Your task to perform on an android device: Open calendar and show me the second week of next month Image 0: 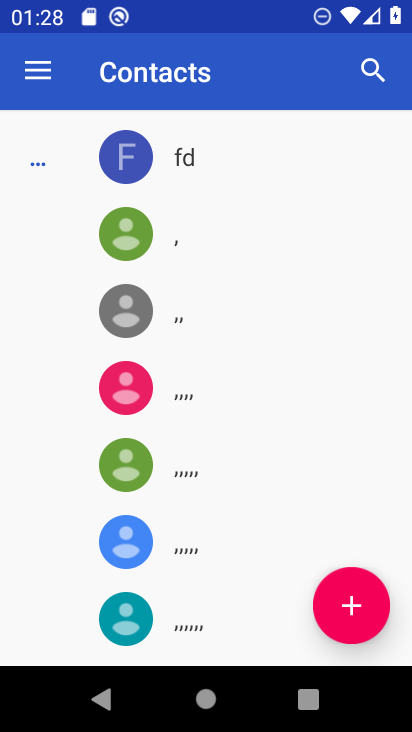
Step 0: press home button
Your task to perform on an android device: Open calendar and show me the second week of next month Image 1: 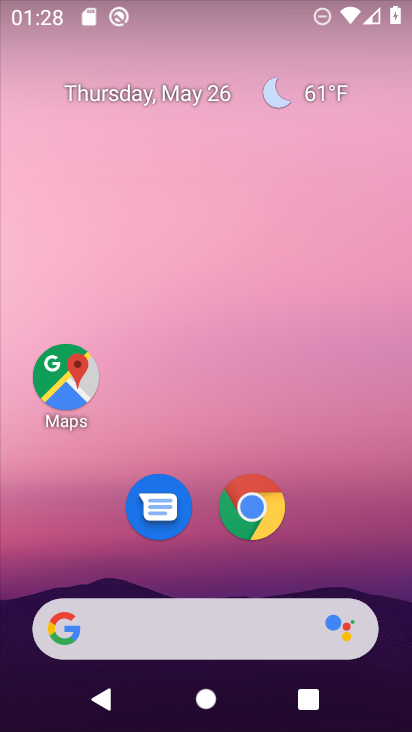
Step 1: drag from (312, 546) to (263, 48)
Your task to perform on an android device: Open calendar and show me the second week of next month Image 2: 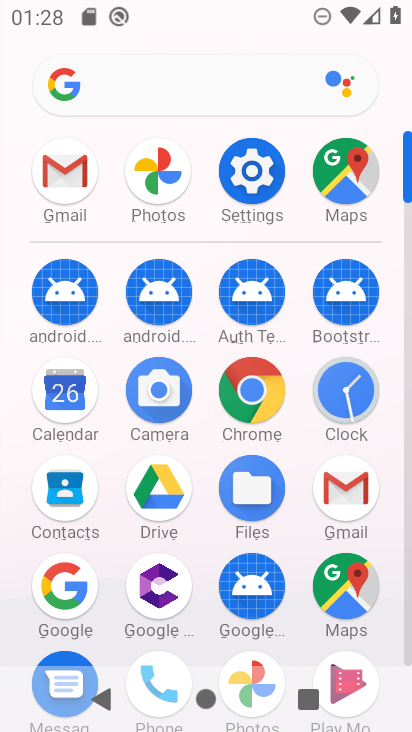
Step 2: click (77, 414)
Your task to perform on an android device: Open calendar and show me the second week of next month Image 3: 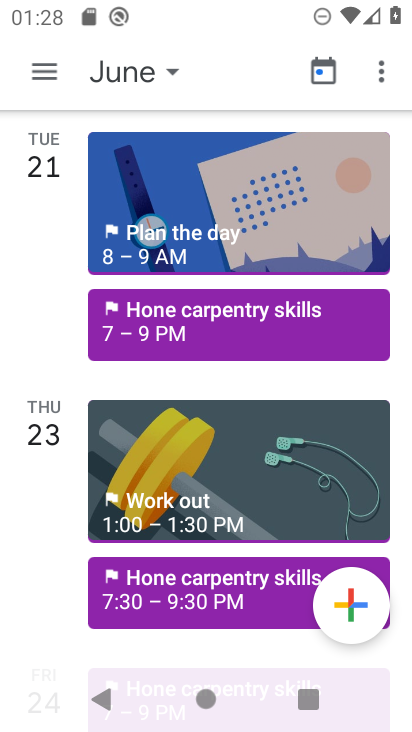
Step 3: task complete